Your task to perform on an android device: turn off javascript in the chrome app Image 0: 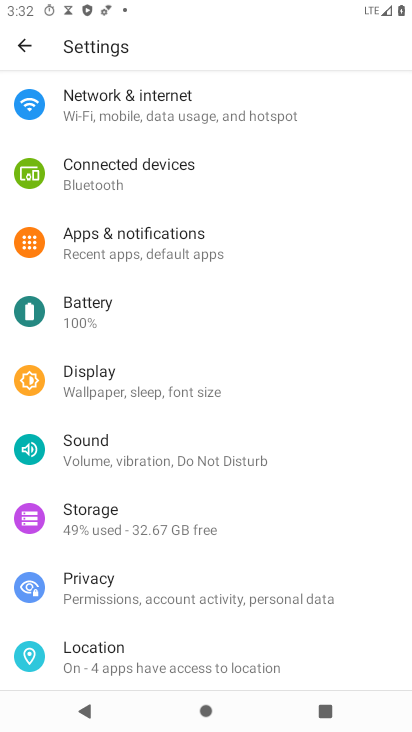
Step 0: press home button
Your task to perform on an android device: turn off javascript in the chrome app Image 1: 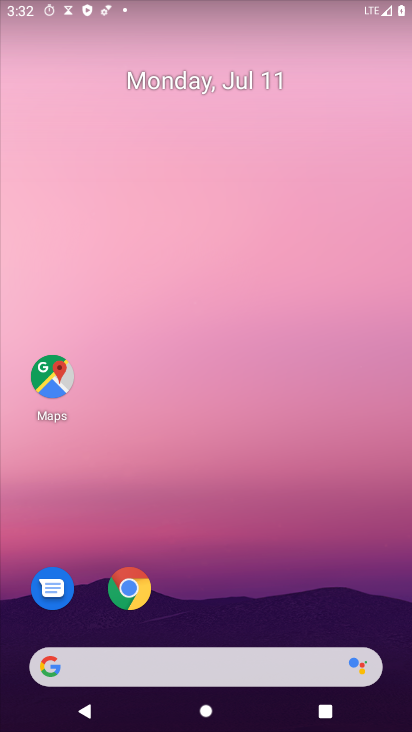
Step 1: click (124, 576)
Your task to perform on an android device: turn off javascript in the chrome app Image 2: 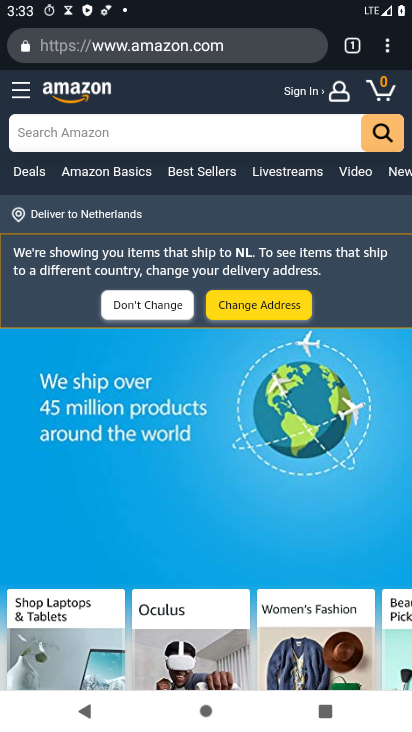
Step 2: click (387, 40)
Your task to perform on an android device: turn off javascript in the chrome app Image 3: 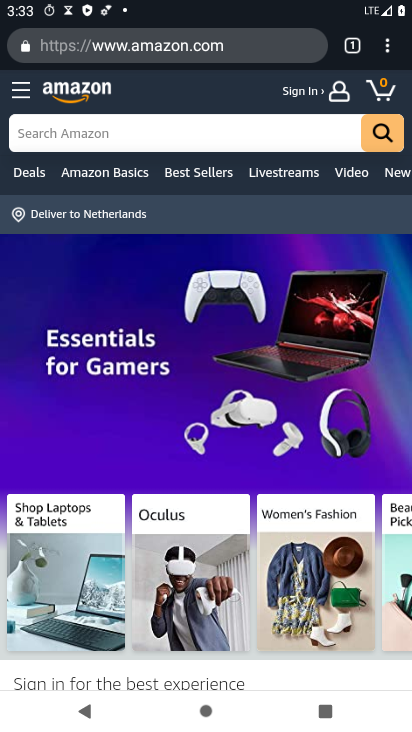
Step 3: click (378, 50)
Your task to perform on an android device: turn off javascript in the chrome app Image 4: 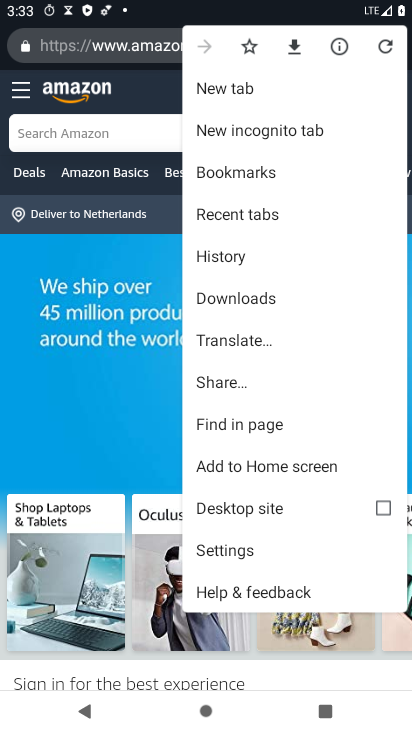
Step 4: click (216, 550)
Your task to perform on an android device: turn off javascript in the chrome app Image 5: 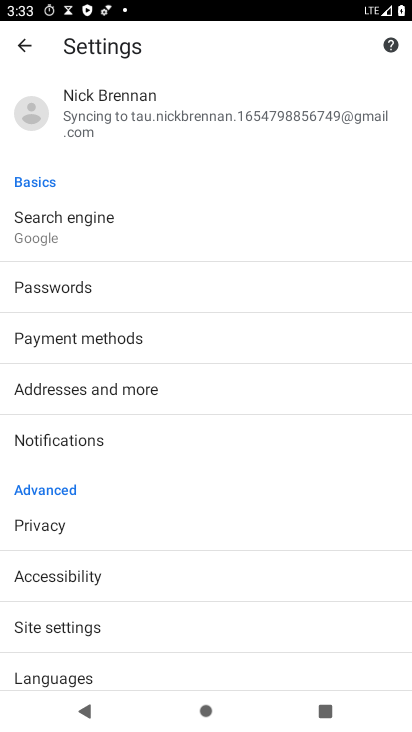
Step 5: click (78, 642)
Your task to perform on an android device: turn off javascript in the chrome app Image 6: 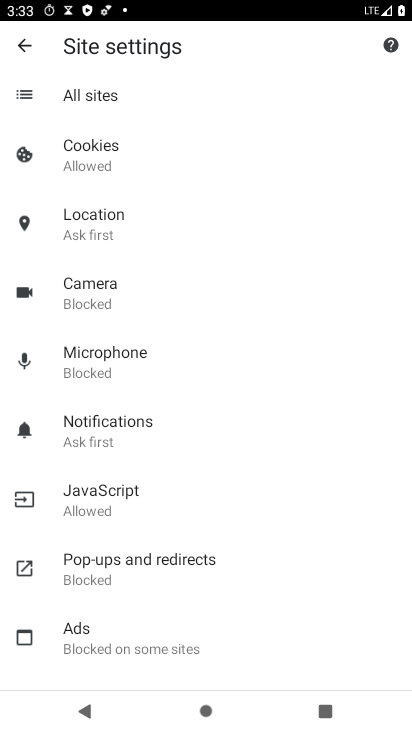
Step 6: click (148, 492)
Your task to perform on an android device: turn off javascript in the chrome app Image 7: 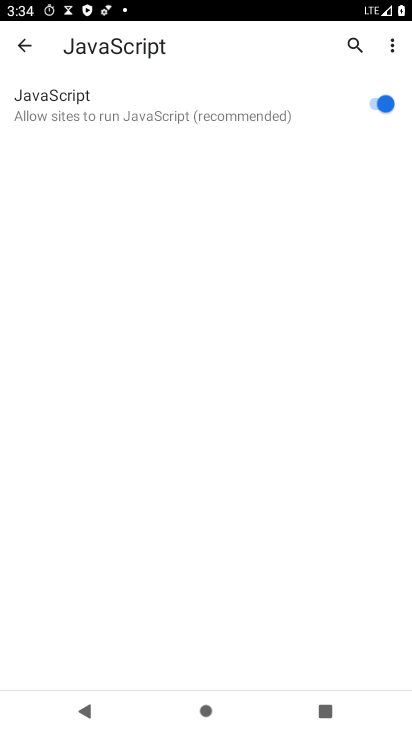
Step 7: click (384, 97)
Your task to perform on an android device: turn off javascript in the chrome app Image 8: 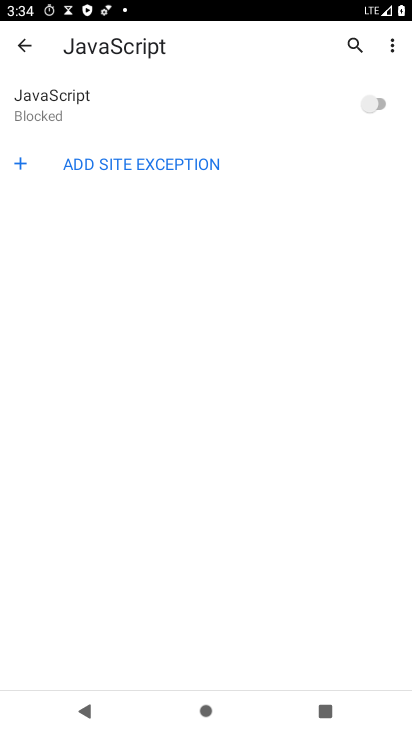
Step 8: task complete